Your task to perform on an android device: open a bookmark in the chrome app Image 0: 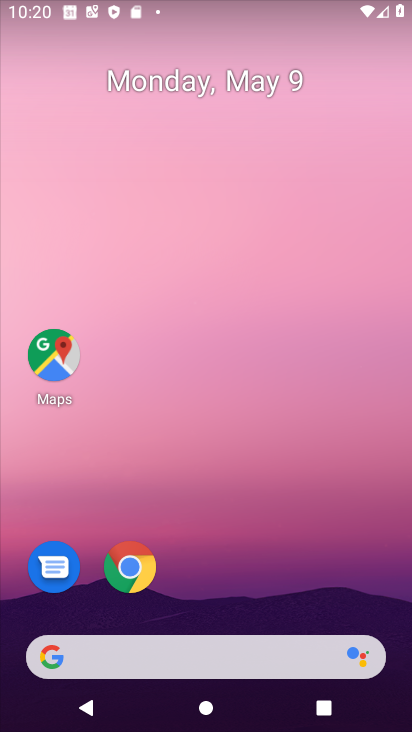
Step 0: click (124, 561)
Your task to perform on an android device: open a bookmark in the chrome app Image 1: 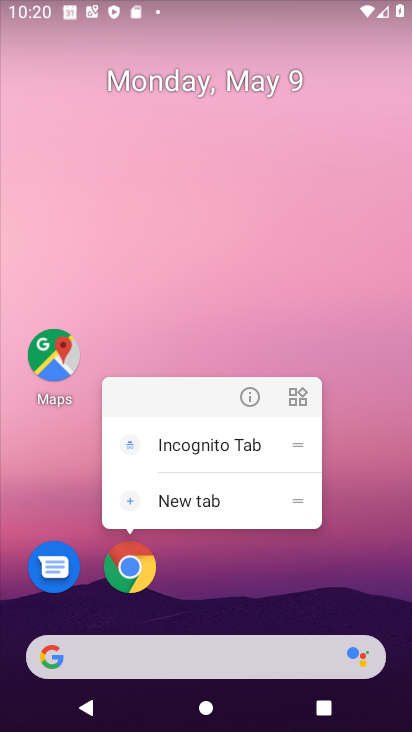
Step 1: click (124, 561)
Your task to perform on an android device: open a bookmark in the chrome app Image 2: 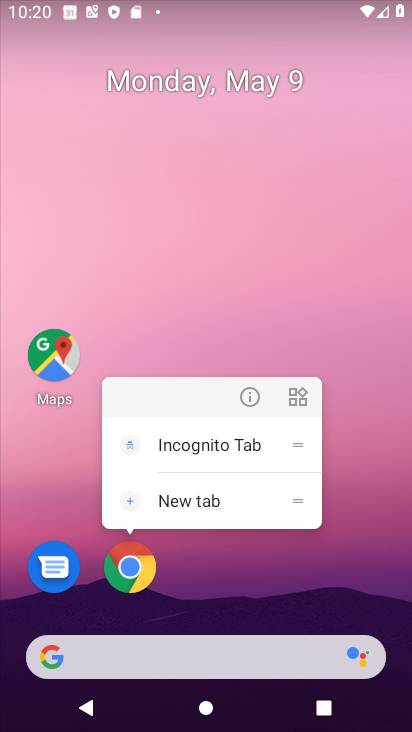
Step 2: click (124, 561)
Your task to perform on an android device: open a bookmark in the chrome app Image 3: 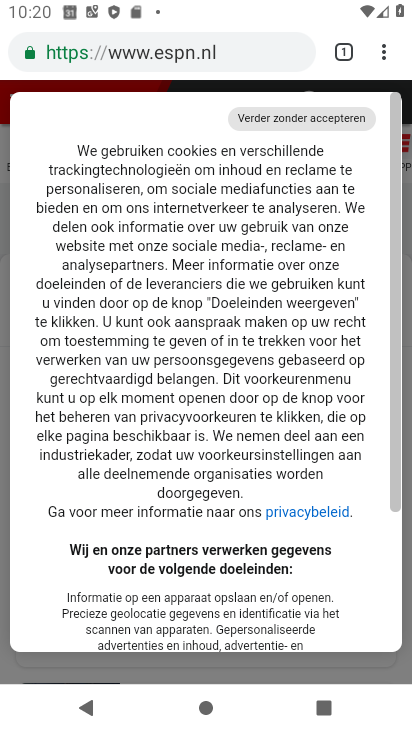
Step 3: click (384, 49)
Your task to perform on an android device: open a bookmark in the chrome app Image 4: 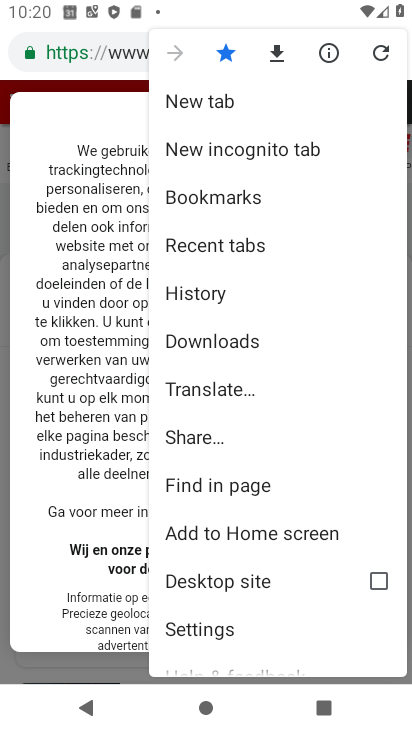
Step 4: click (222, 207)
Your task to perform on an android device: open a bookmark in the chrome app Image 5: 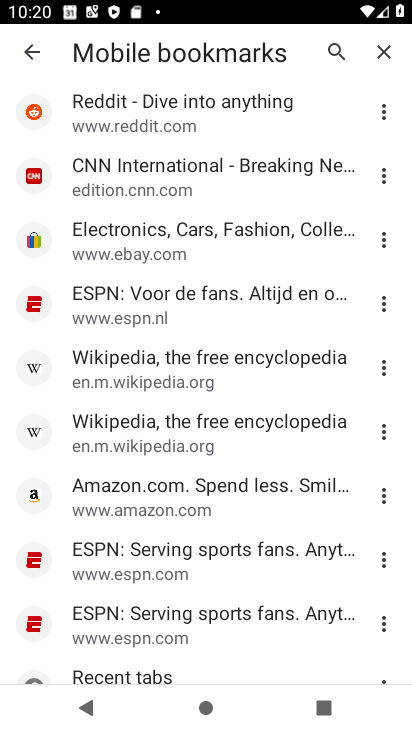
Step 5: click (172, 207)
Your task to perform on an android device: open a bookmark in the chrome app Image 6: 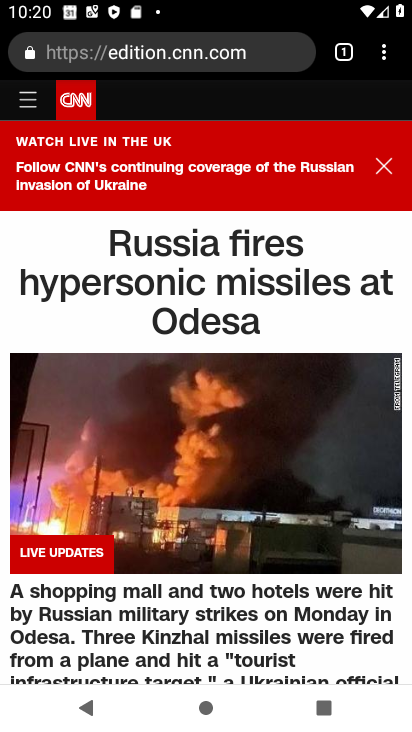
Step 6: drag from (383, 47) to (225, 198)
Your task to perform on an android device: open a bookmark in the chrome app Image 7: 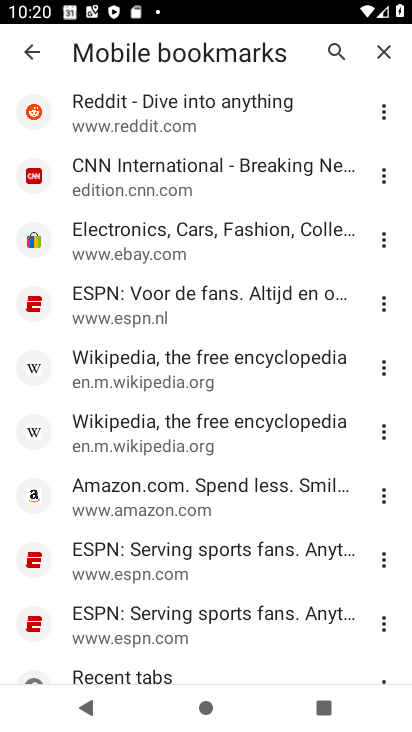
Step 7: click (178, 557)
Your task to perform on an android device: open a bookmark in the chrome app Image 8: 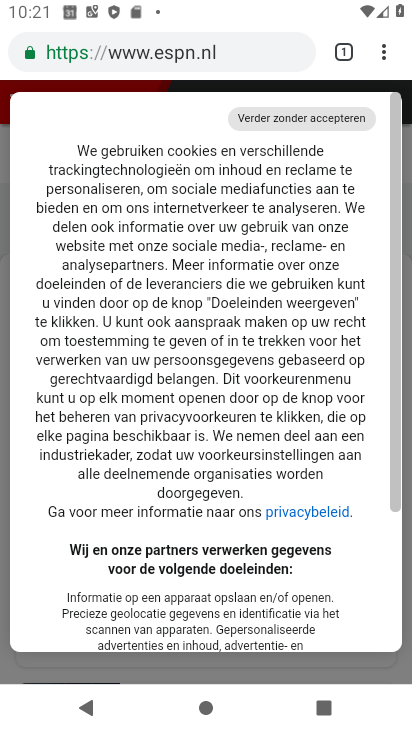
Step 8: task complete